Your task to perform on an android device: Open Google Chrome and click the shortcut for Amazon.com Image 0: 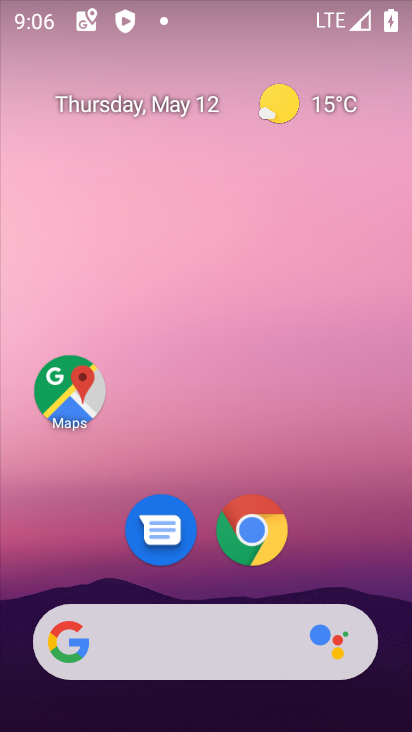
Step 0: click (259, 545)
Your task to perform on an android device: Open Google Chrome and click the shortcut for Amazon.com Image 1: 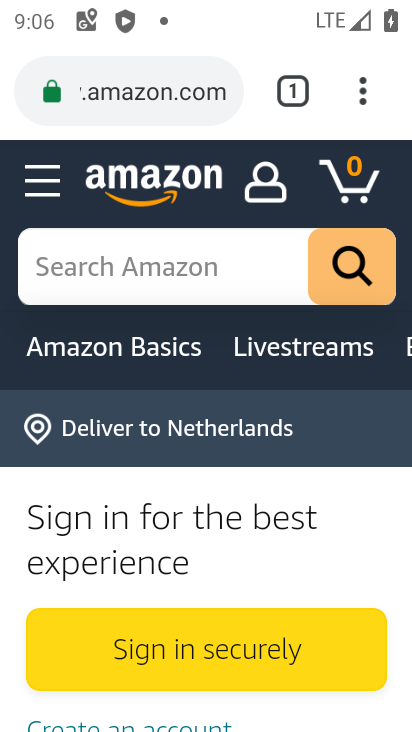
Step 1: click (370, 86)
Your task to perform on an android device: Open Google Chrome and click the shortcut for Amazon.com Image 2: 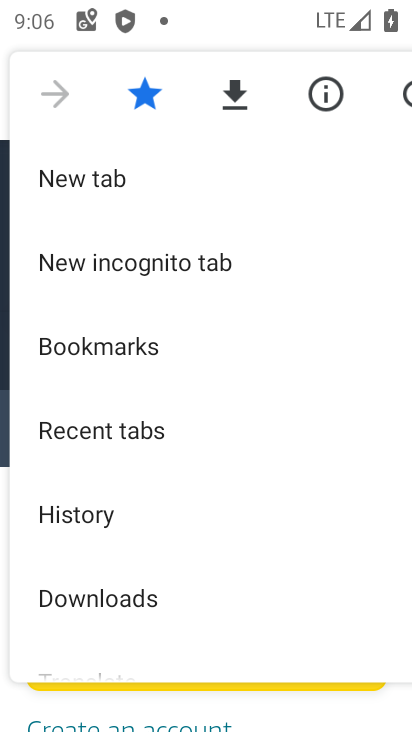
Step 2: click (68, 185)
Your task to perform on an android device: Open Google Chrome and click the shortcut for Amazon.com Image 3: 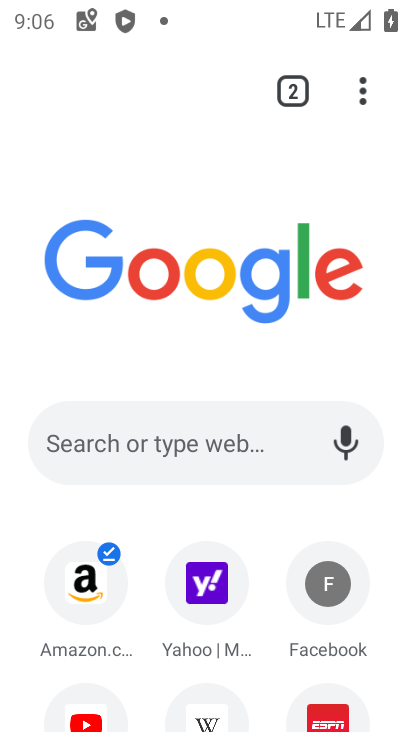
Step 3: click (78, 575)
Your task to perform on an android device: Open Google Chrome and click the shortcut for Amazon.com Image 4: 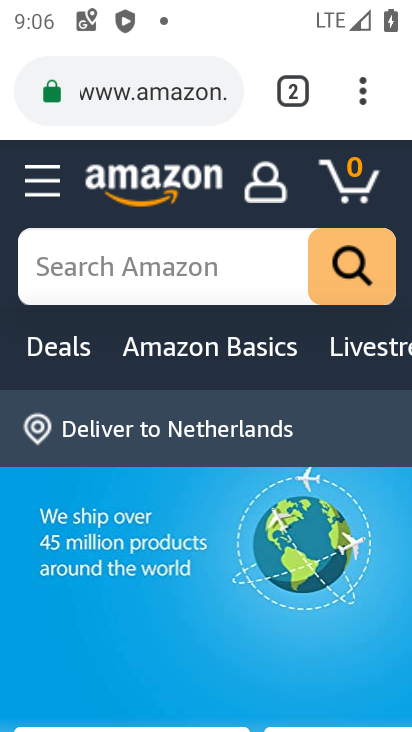
Step 4: task complete